Your task to perform on an android device: empty trash in the gmail app Image 0: 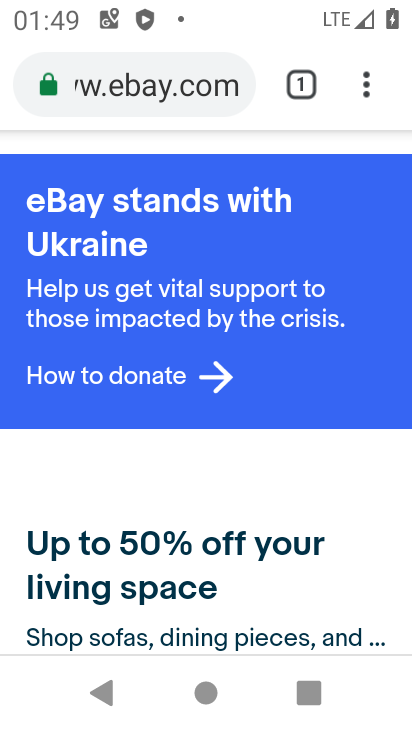
Step 0: press home button
Your task to perform on an android device: empty trash in the gmail app Image 1: 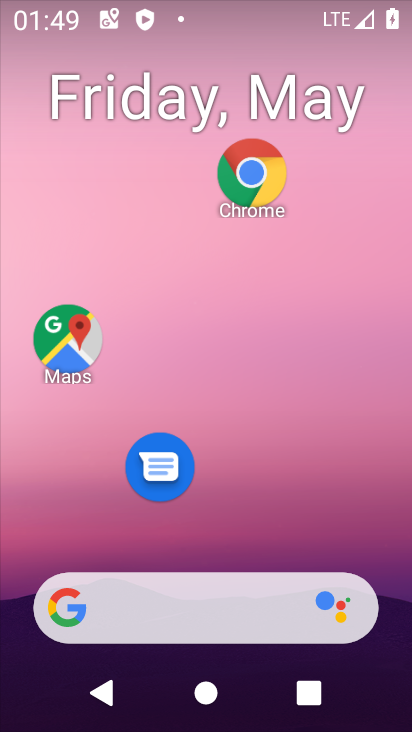
Step 1: drag from (240, 571) to (200, 184)
Your task to perform on an android device: empty trash in the gmail app Image 2: 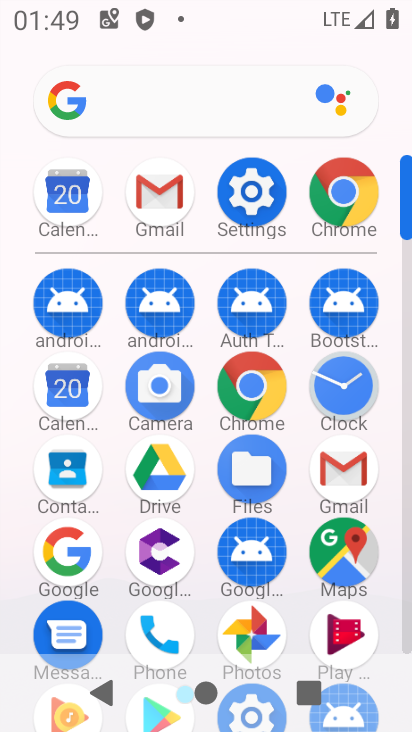
Step 2: click (362, 468)
Your task to perform on an android device: empty trash in the gmail app Image 3: 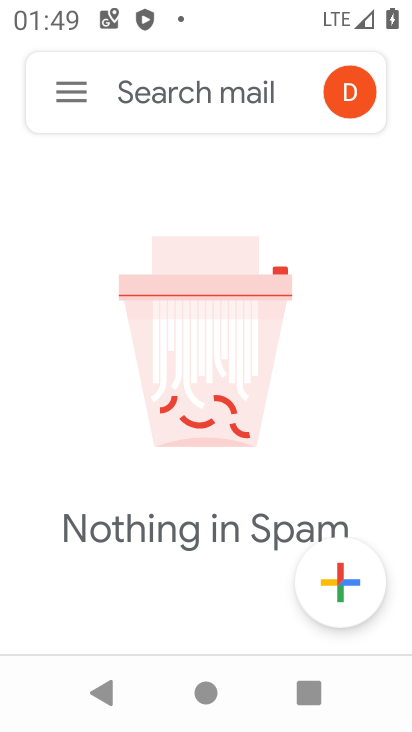
Step 3: click (72, 107)
Your task to perform on an android device: empty trash in the gmail app Image 4: 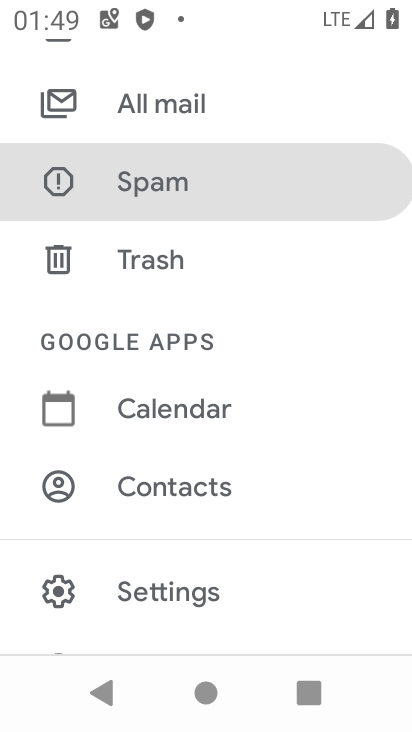
Step 4: click (129, 264)
Your task to perform on an android device: empty trash in the gmail app Image 5: 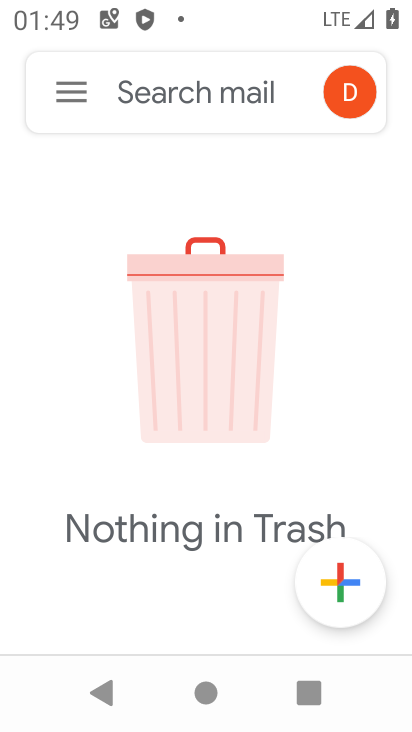
Step 5: task complete